Your task to perform on an android device: check storage Image 0: 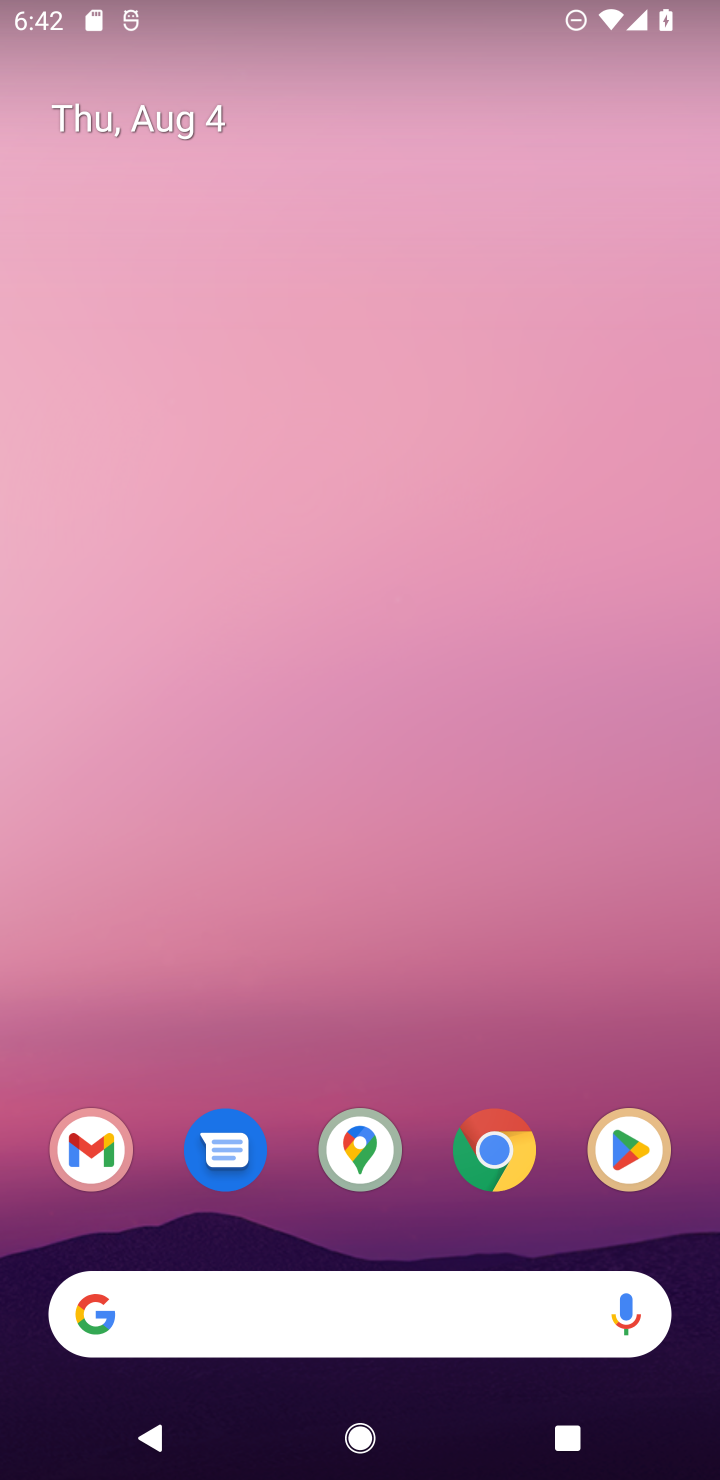
Step 0: drag from (461, 1278) to (457, 17)
Your task to perform on an android device: check storage Image 1: 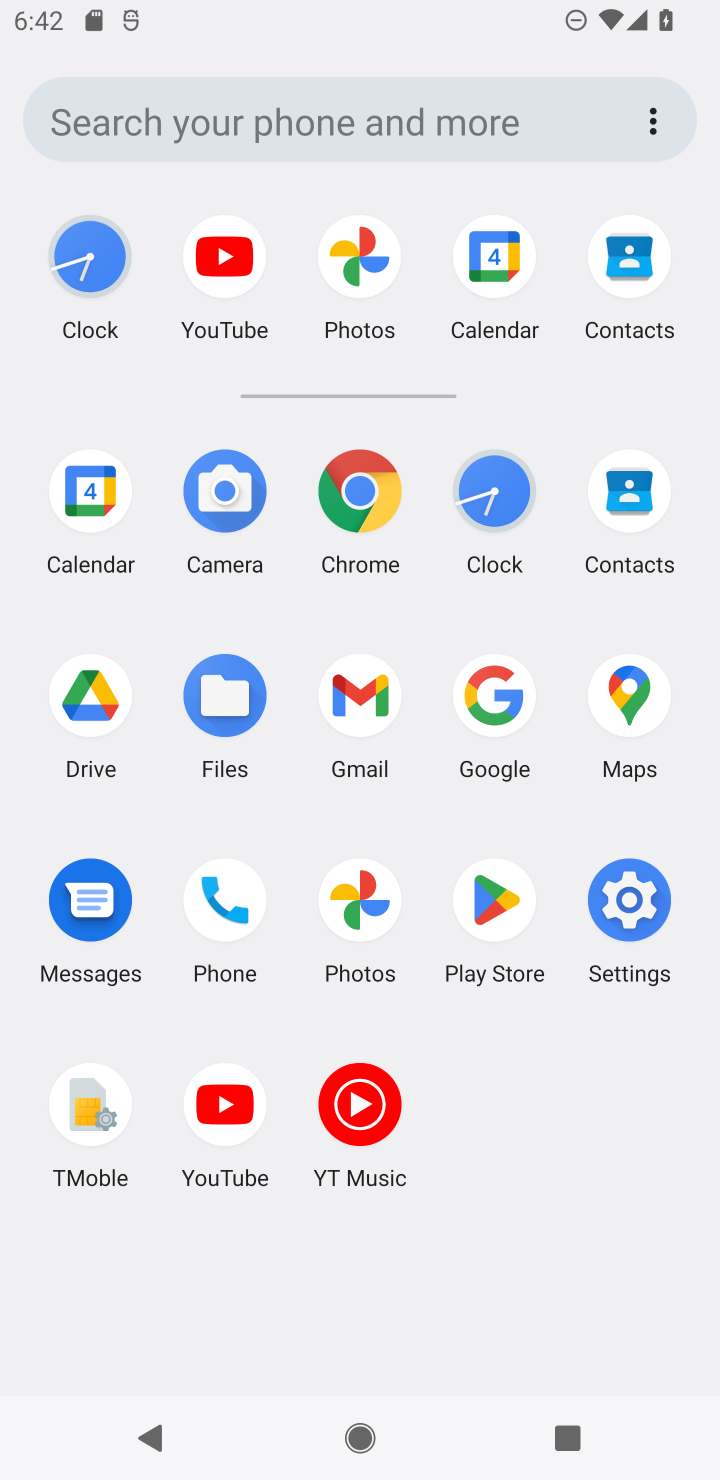
Step 1: click (655, 895)
Your task to perform on an android device: check storage Image 2: 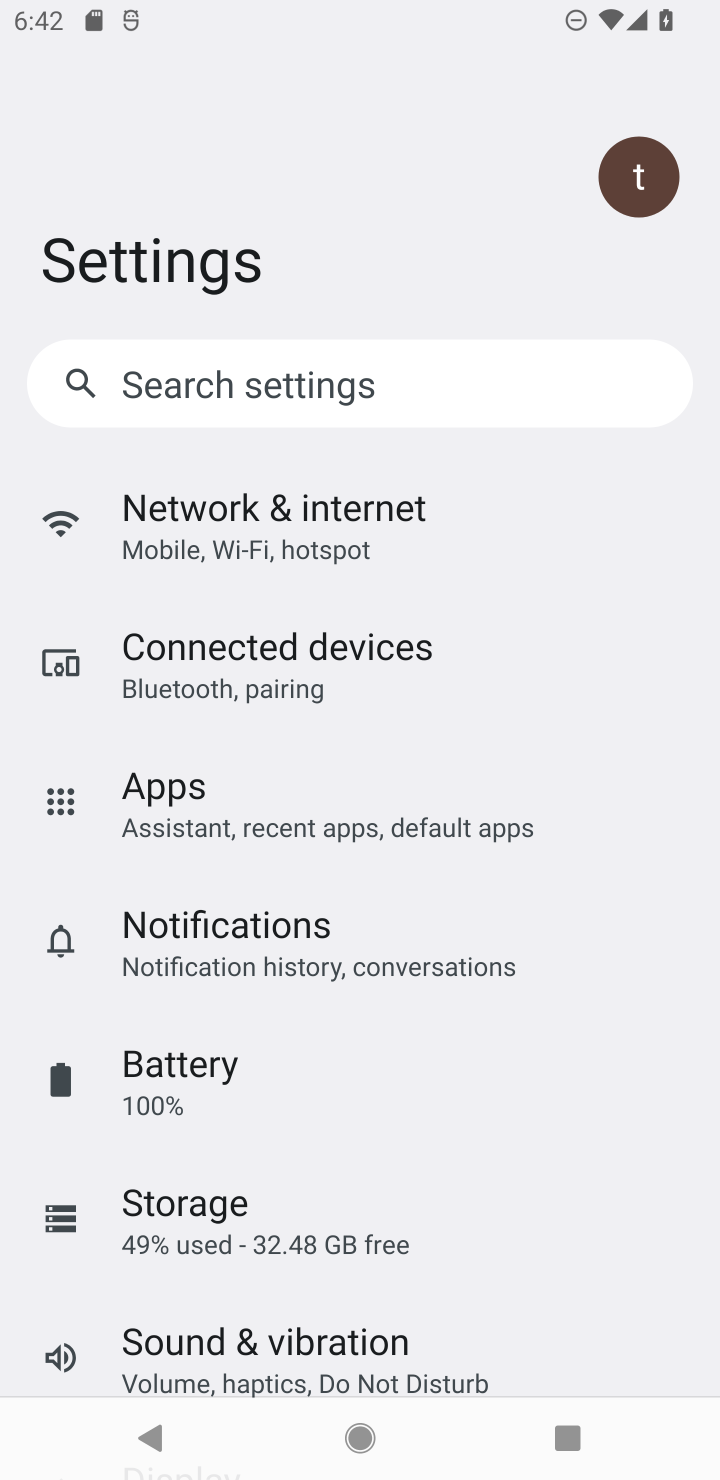
Step 2: click (284, 1208)
Your task to perform on an android device: check storage Image 3: 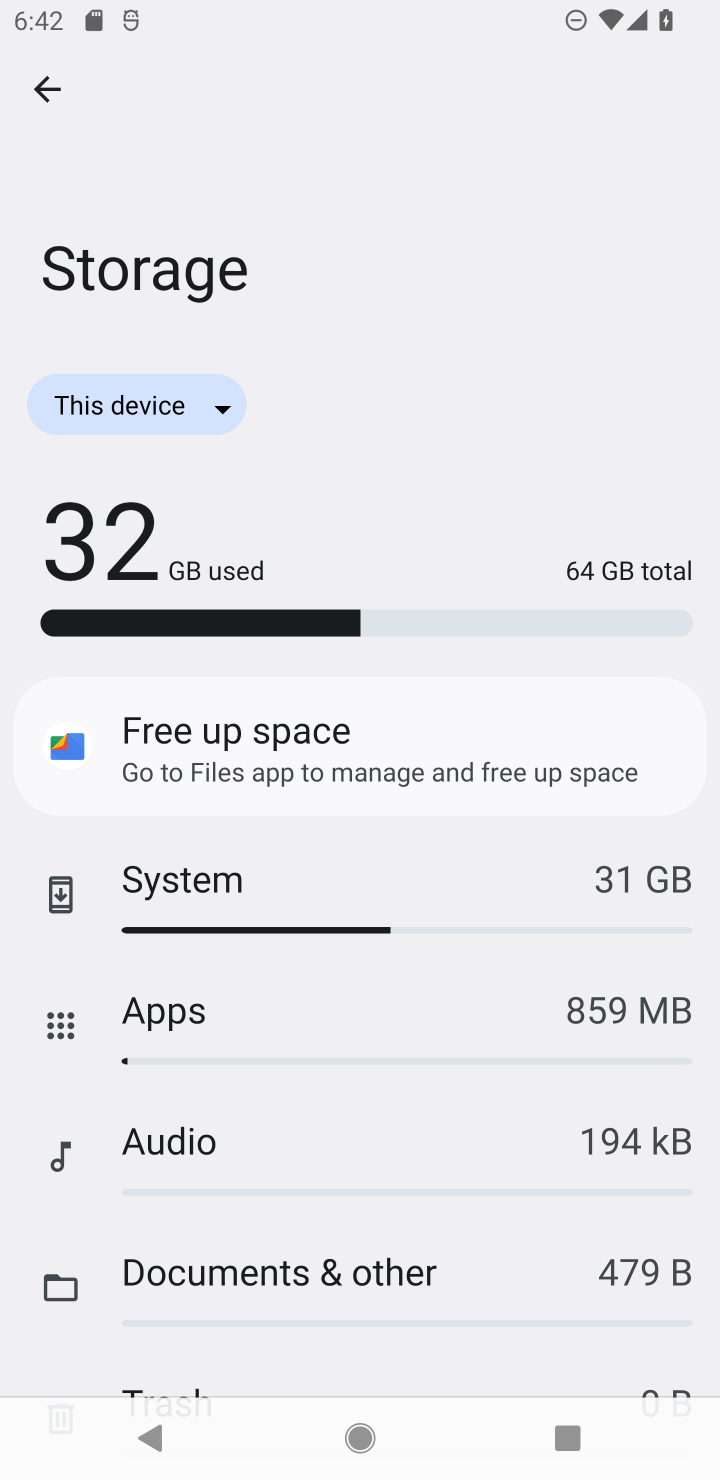
Step 3: task complete